Your task to perform on an android device: open wifi settings Image 0: 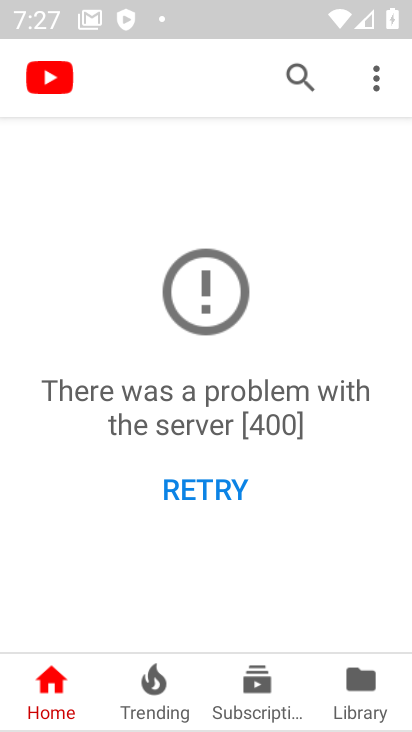
Step 0: press back button
Your task to perform on an android device: open wifi settings Image 1: 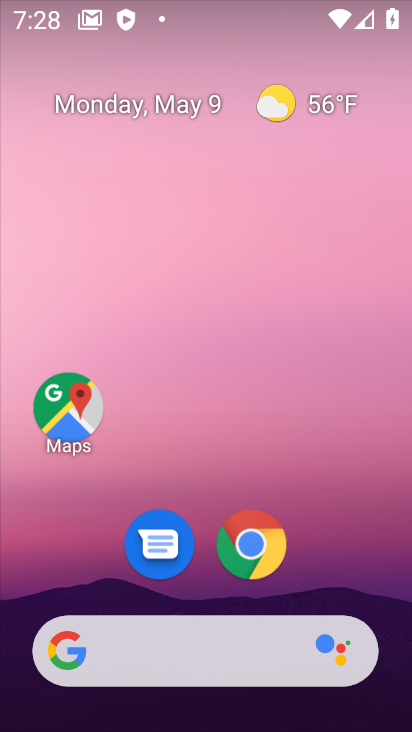
Step 1: drag from (322, 564) to (293, 14)
Your task to perform on an android device: open wifi settings Image 2: 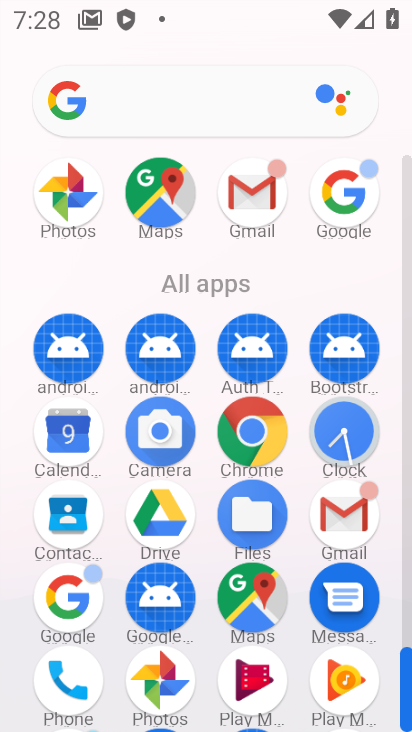
Step 2: drag from (208, 564) to (210, 282)
Your task to perform on an android device: open wifi settings Image 3: 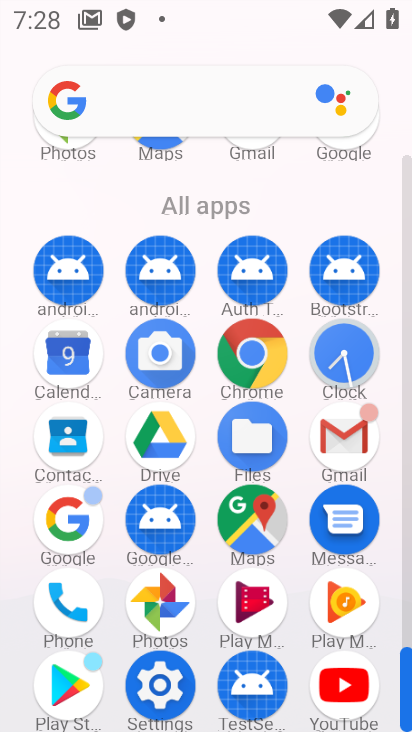
Step 3: click (159, 686)
Your task to perform on an android device: open wifi settings Image 4: 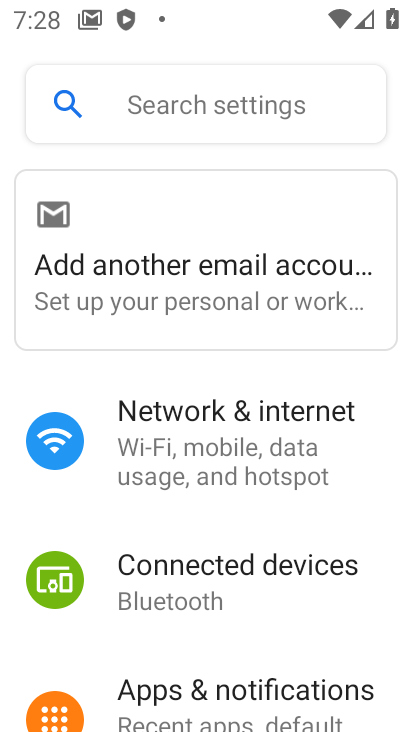
Step 4: click (233, 410)
Your task to perform on an android device: open wifi settings Image 5: 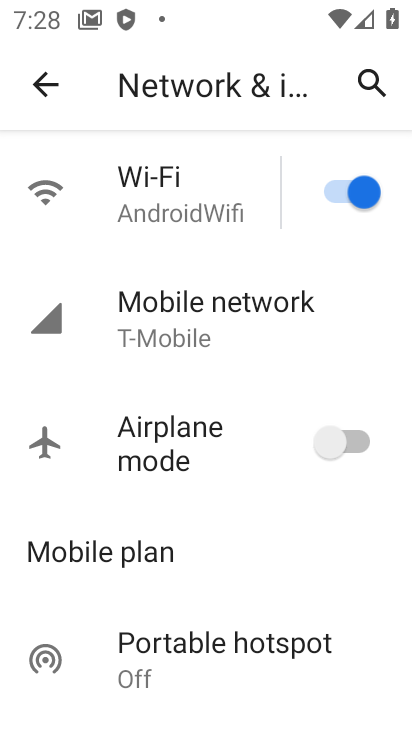
Step 5: click (136, 175)
Your task to perform on an android device: open wifi settings Image 6: 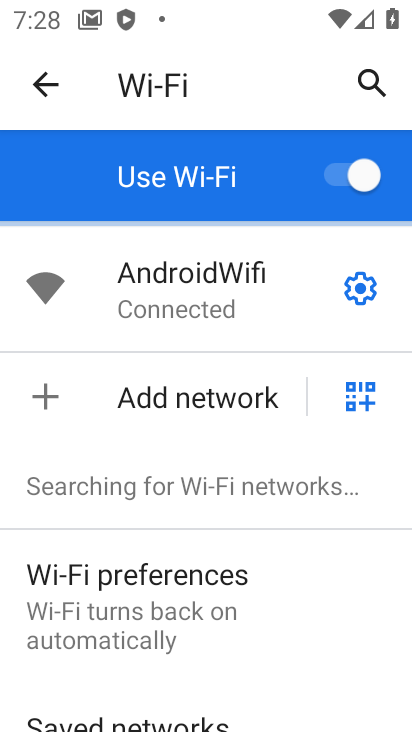
Step 6: click (360, 289)
Your task to perform on an android device: open wifi settings Image 7: 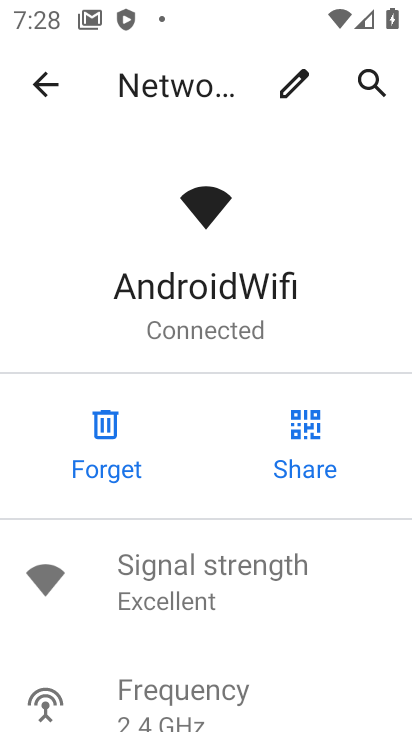
Step 7: task complete